Your task to perform on an android device: Show the shopping cart on walmart.com. Search for logitech g910 on walmart.com, select the first entry, and add it to the cart. Image 0: 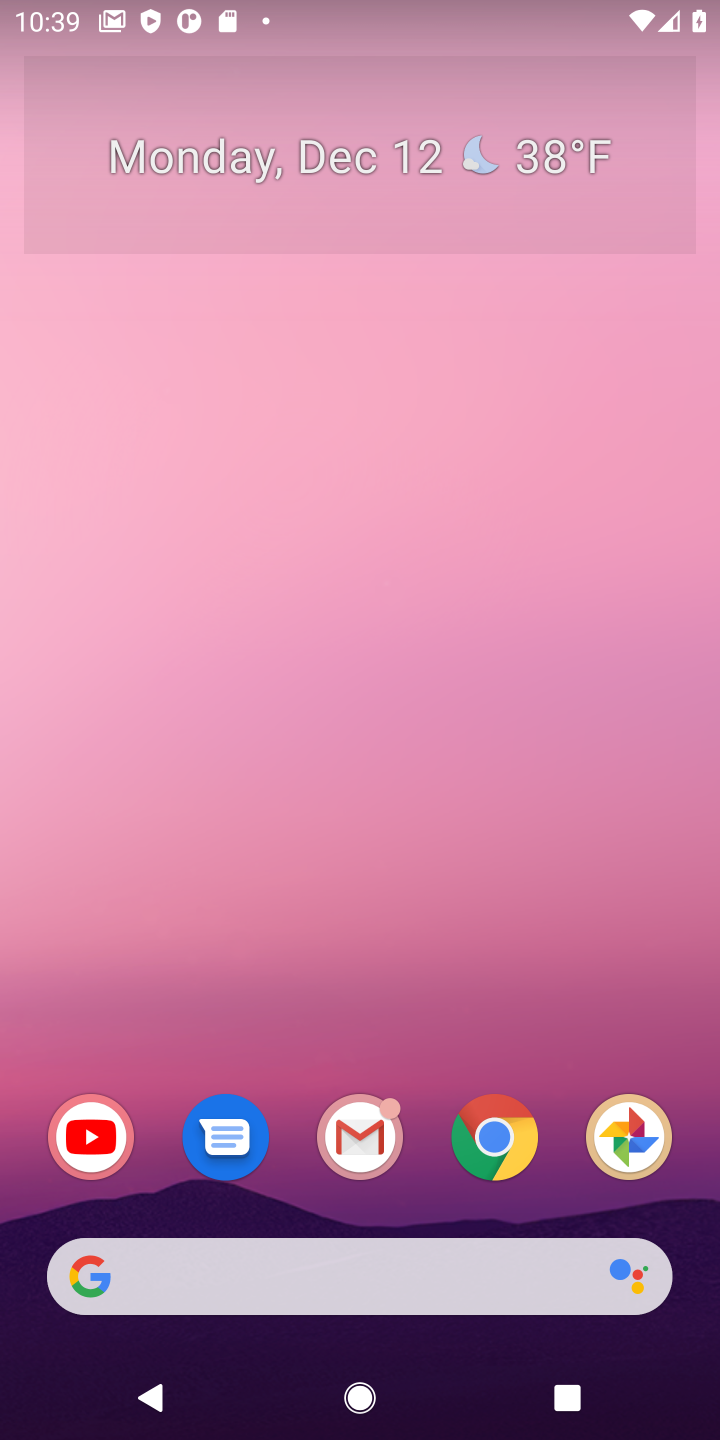
Step 0: press home button
Your task to perform on an android device: Show the shopping cart on walmart.com. Search for logitech g910 on walmart.com, select the first entry, and add it to the cart. Image 1: 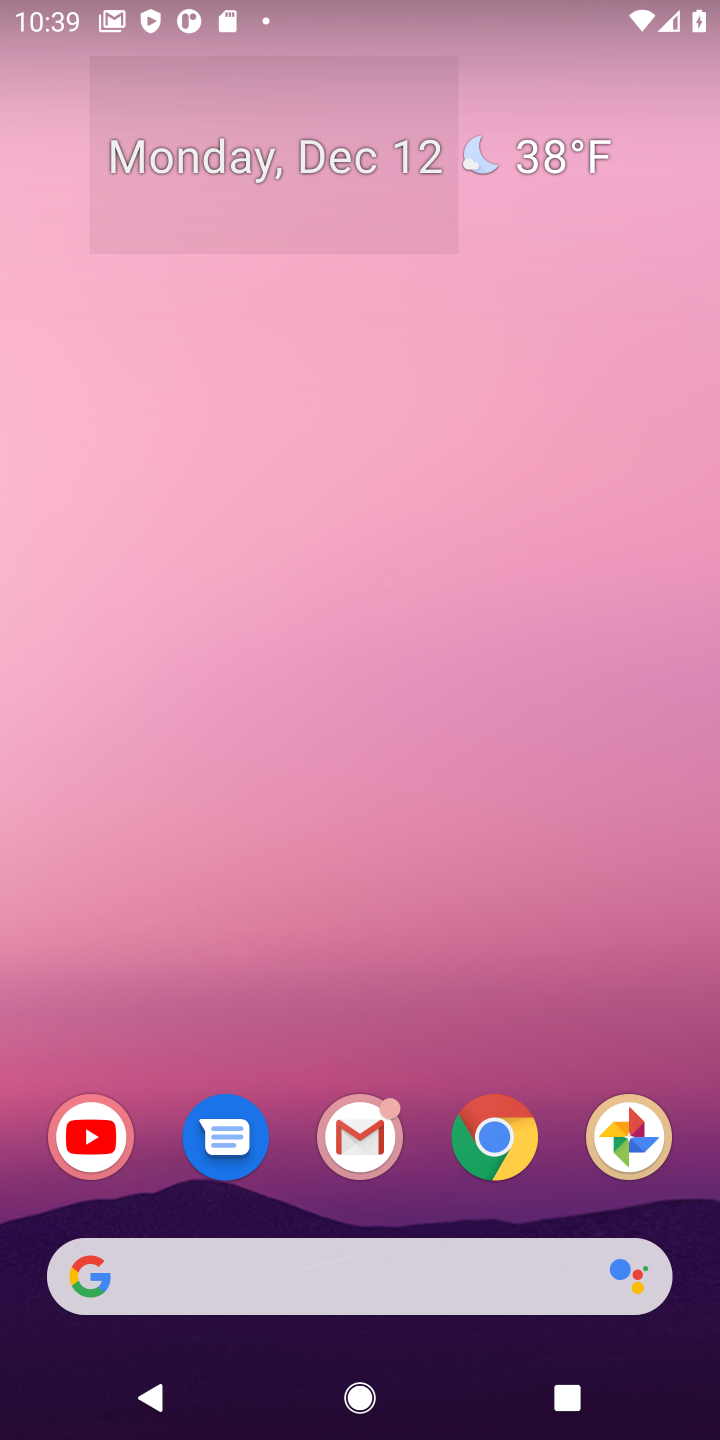
Step 1: click (411, 1272)
Your task to perform on an android device: Show the shopping cart on walmart.com. Search for logitech g910 on walmart.com, select the first entry, and add it to the cart. Image 2: 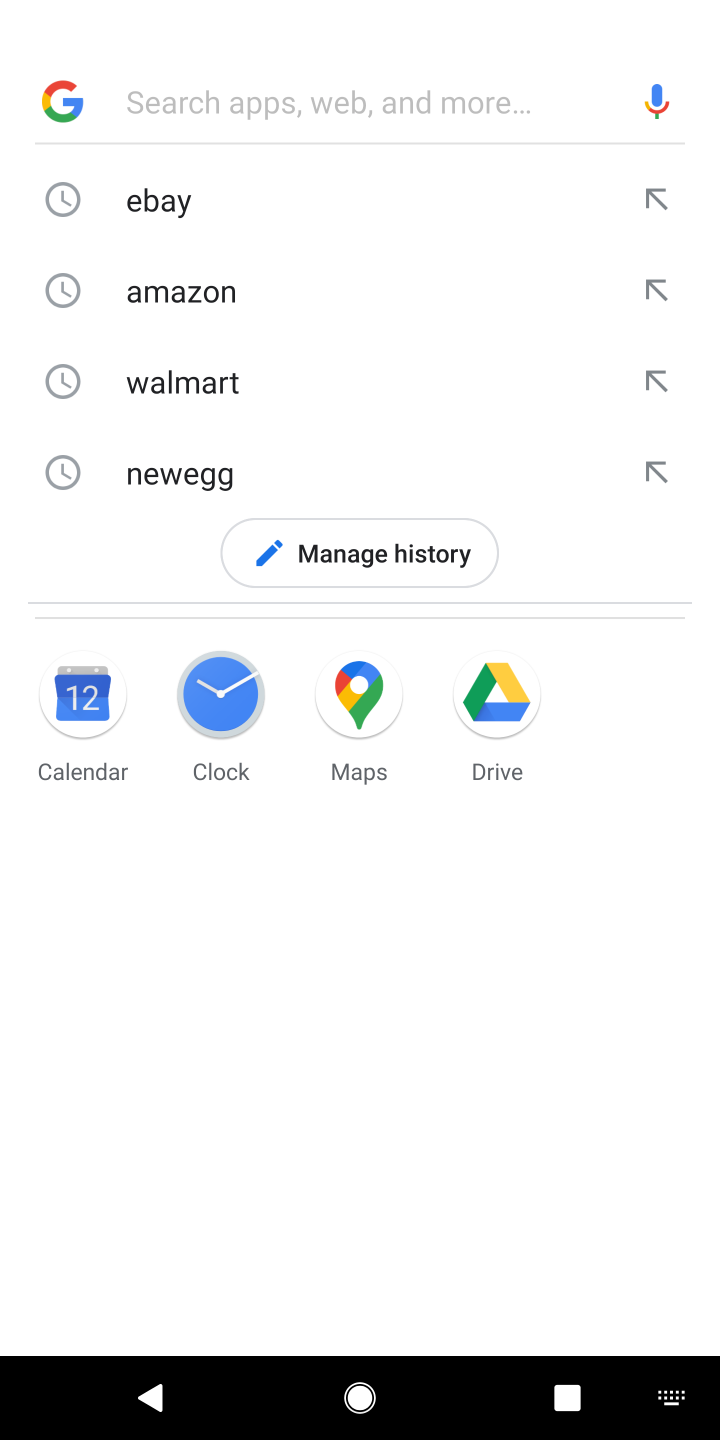
Step 2: type "walmart"
Your task to perform on an android device: Show the shopping cart on walmart.com. Search for logitech g910 on walmart.com, select the first entry, and add it to the cart. Image 3: 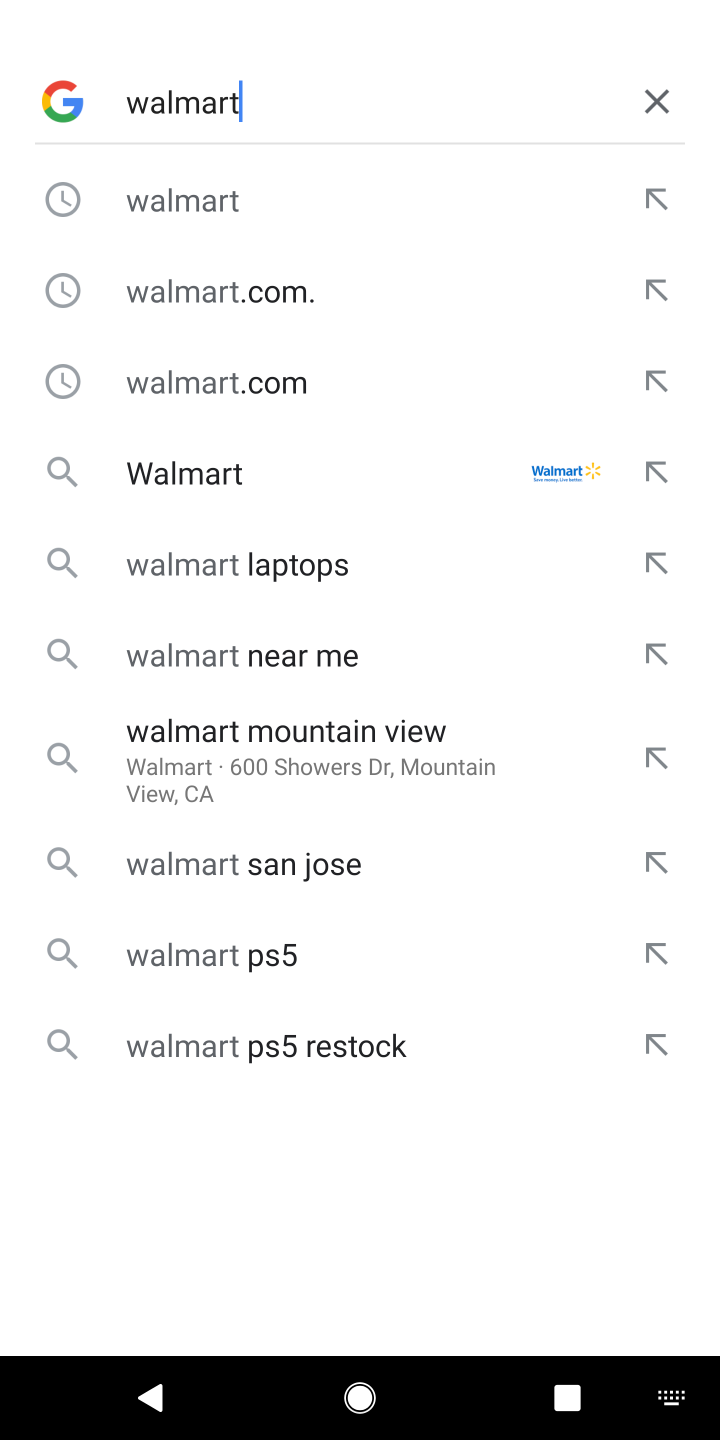
Step 3: click (188, 181)
Your task to perform on an android device: Show the shopping cart on walmart.com. Search for logitech g910 on walmart.com, select the first entry, and add it to the cart. Image 4: 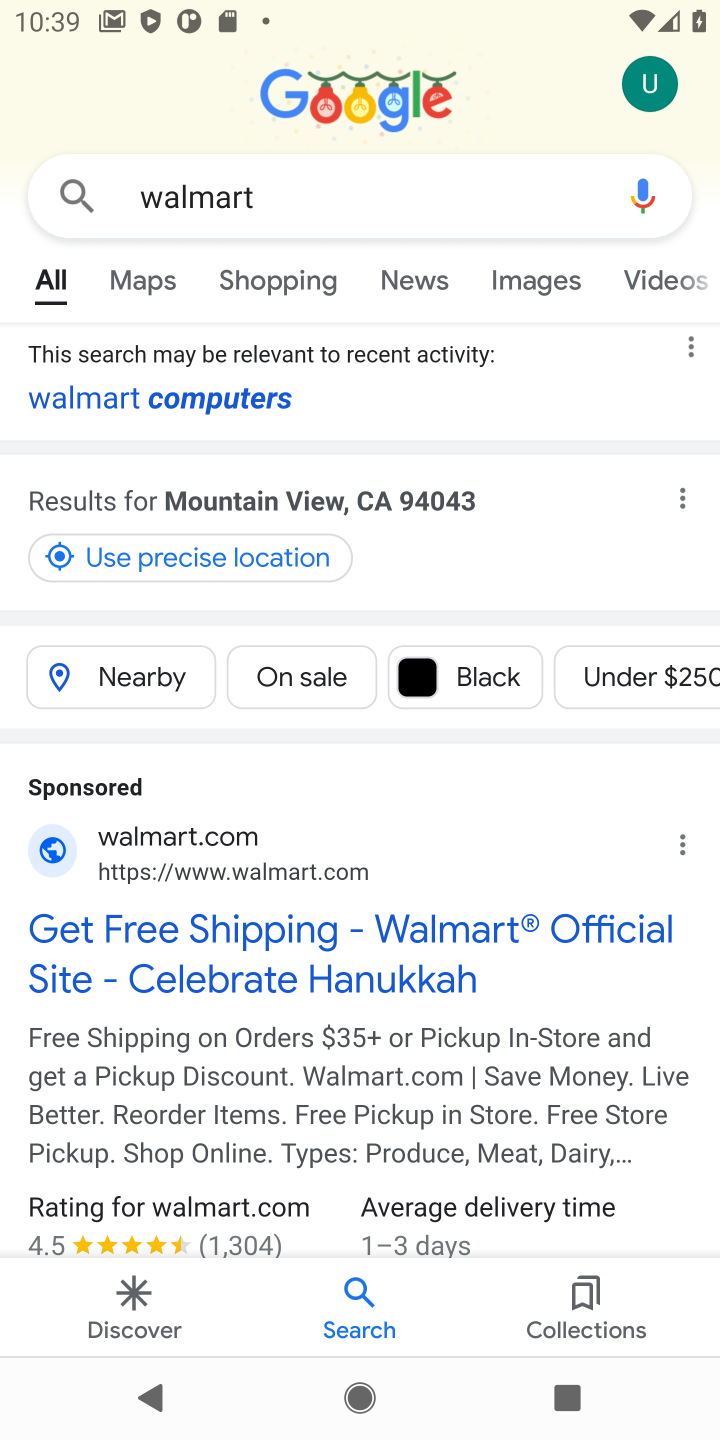
Step 4: click (105, 950)
Your task to perform on an android device: Show the shopping cart on walmart.com. Search for logitech g910 on walmart.com, select the first entry, and add it to the cart. Image 5: 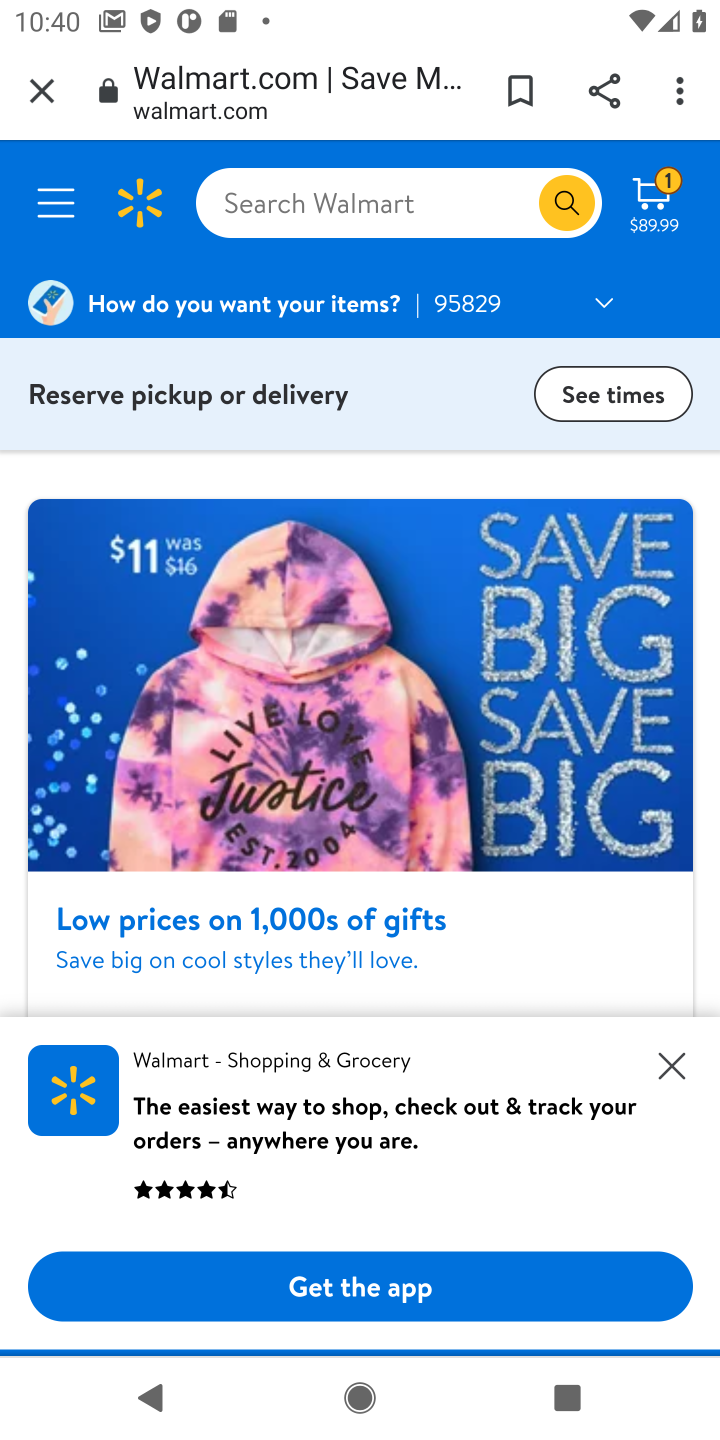
Step 5: click (405, 186)
Your task to perform on an android device: Show the shopping cart on walmart.com. Search for logitech g910 on walmart.com, select the first entry, and add it to the cart. Image 6: 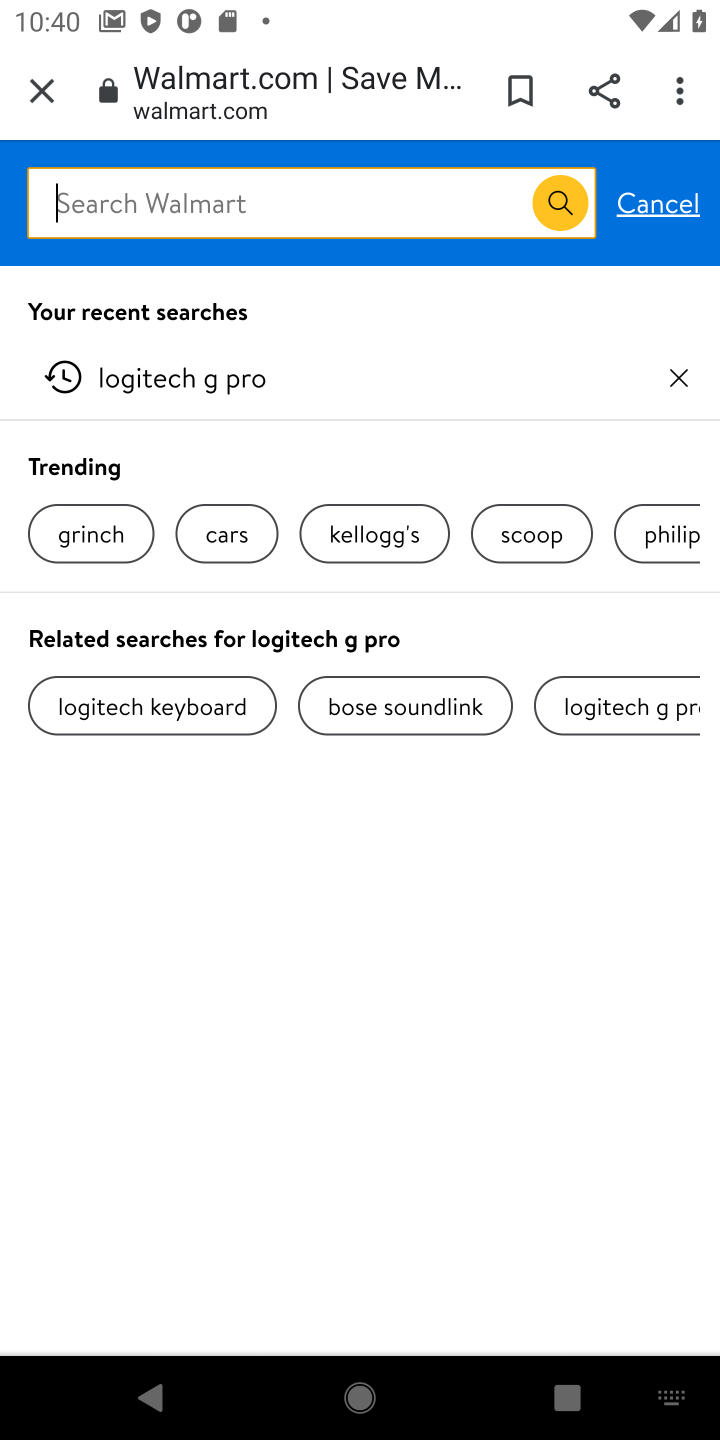
Step 6: type "logitech g910"
Your task to perform on an android device: Show the shopping cart on walmart.com. Search for logitech g910 on walmart.com, select the first entry, and add it to the cart. Image 7: 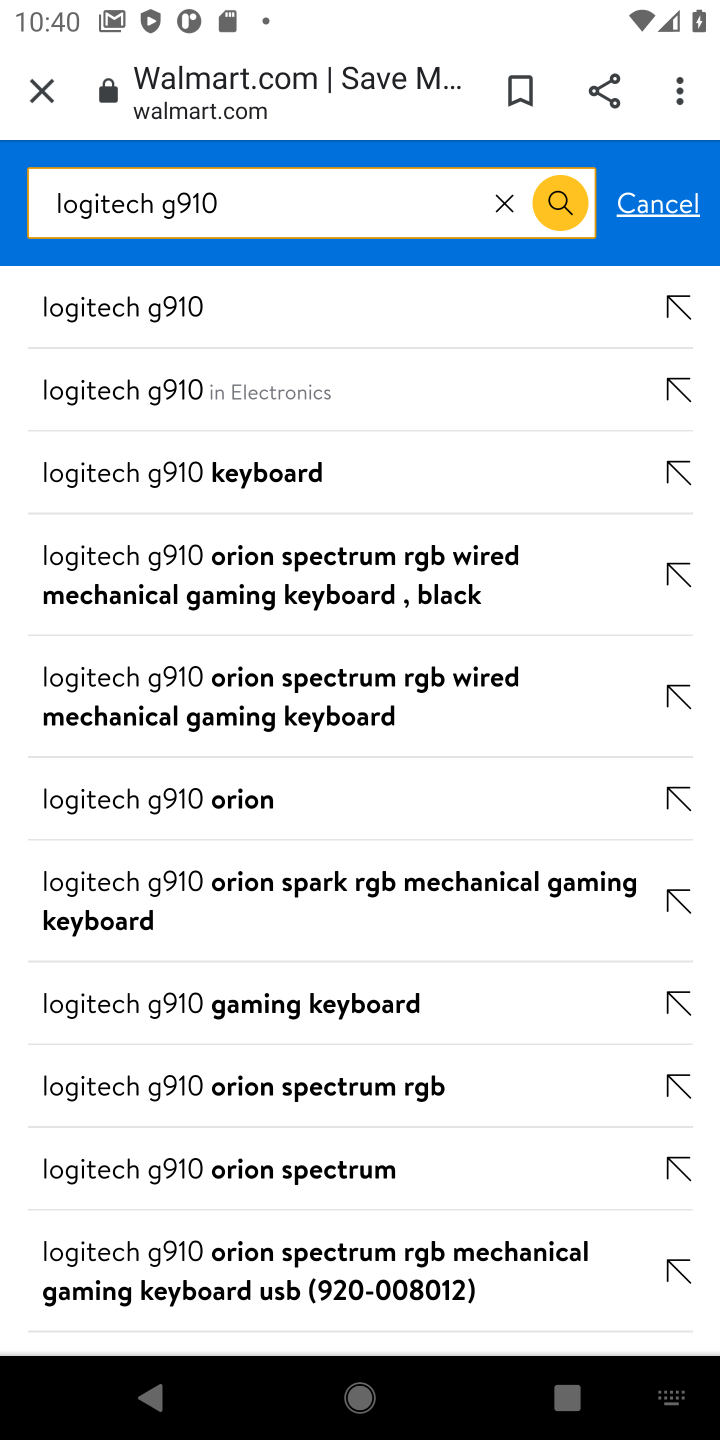
Step 7: click (559, 197)
Your task to perform on an android device: Show the shopping cart on walmart.com. Search for logitech g910 on walmart.com, select the first entry, and add it to the cart. Image 8: 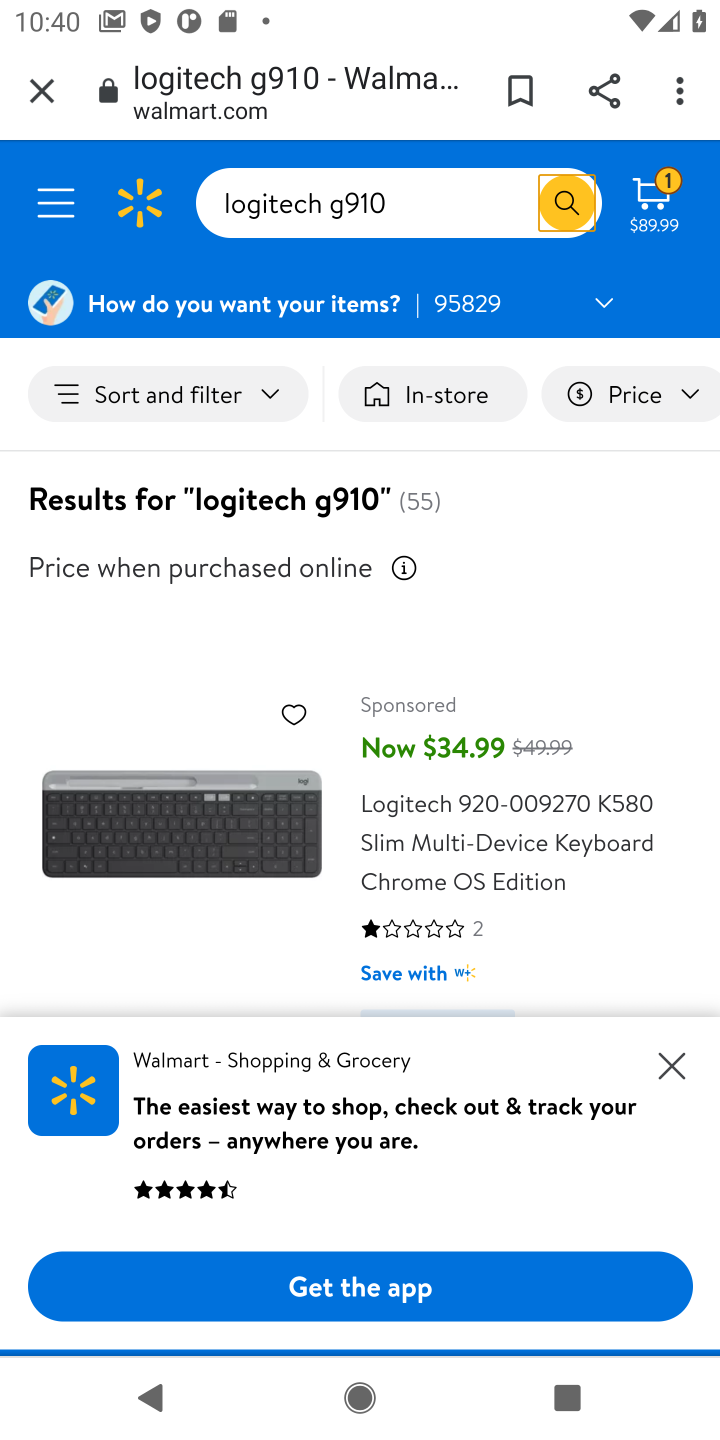
Step 8: click (681, 1069)
Your task to perform on an android device: Show the shopping cart on walmart.com. Search for logitech g910 on walmart.com, select the first entry, and add it to the cart. Image 9: 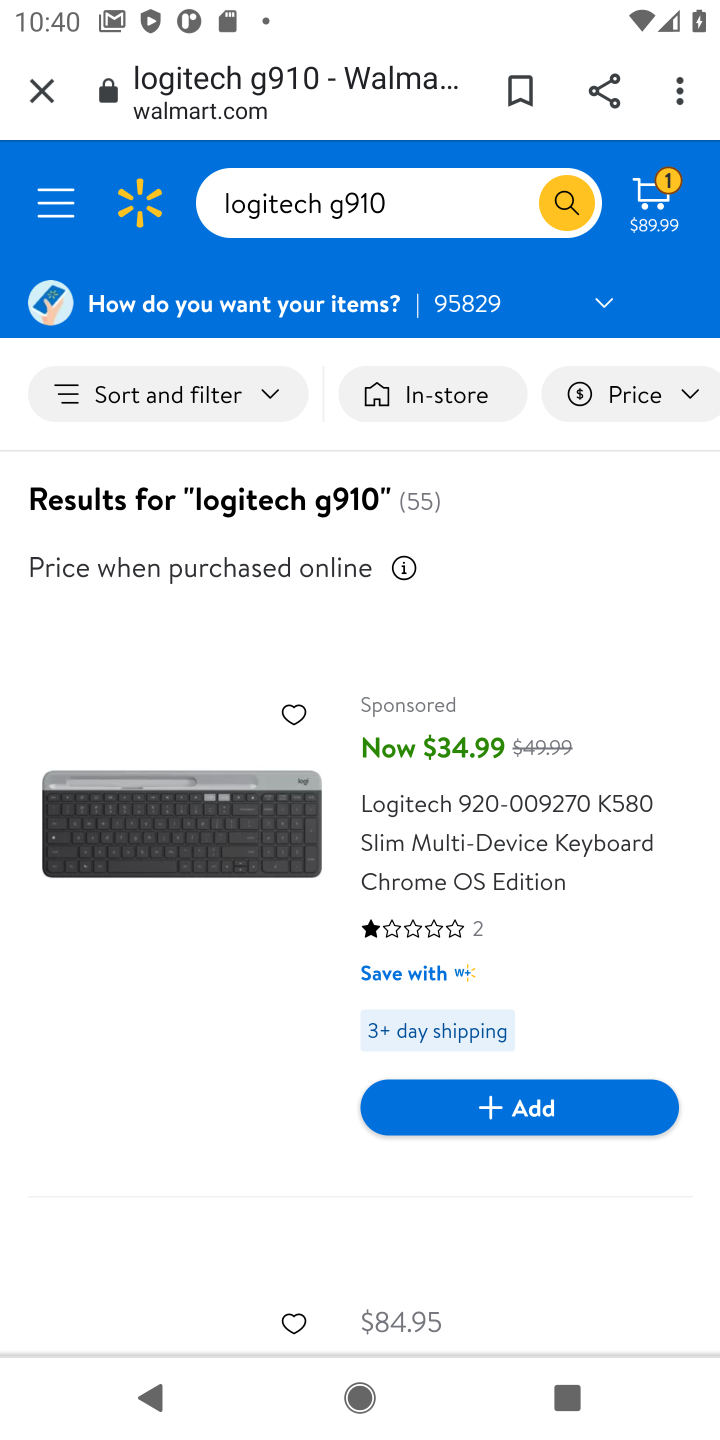
Step 9: click (501, 1125)
Your task to perform on an android device: Show the shopping cart on walmart.com. Search for logitech g910 on walmart.com, select the first entry, and add it to the cart. Image 10: 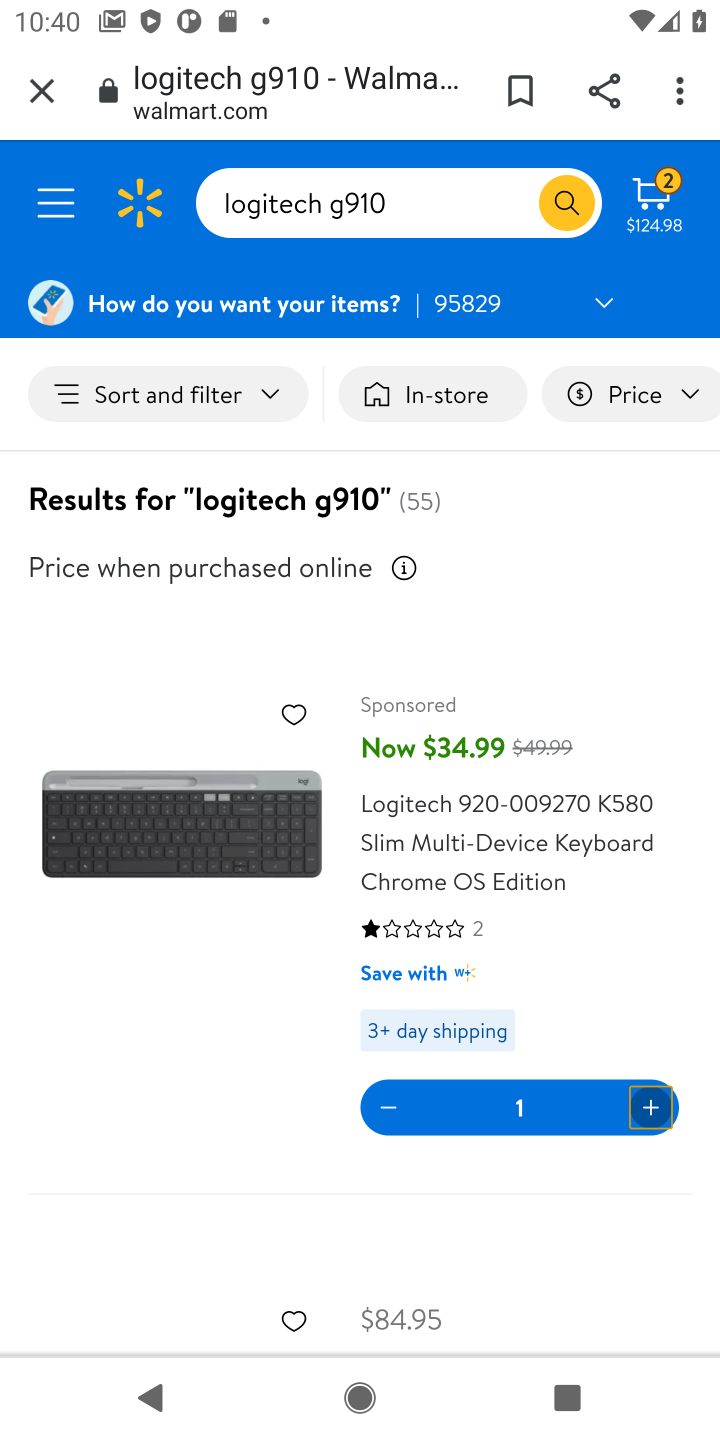
Step 10: task complete